Your task to perform on an android device: Do I have any events this weekend? Image 0: 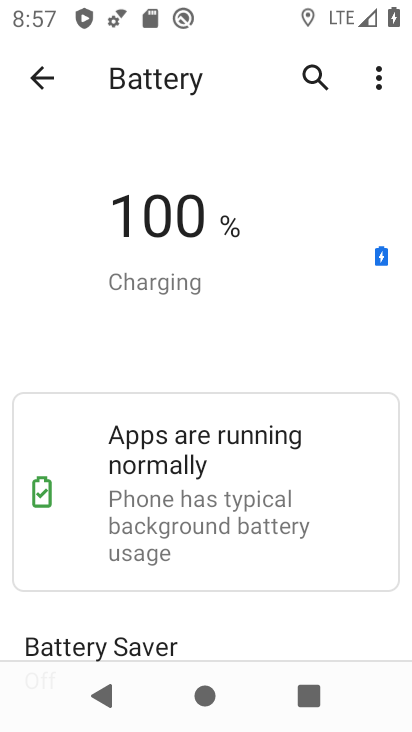
Step 0: press back button
Your task to perform on an android device: Do I have any events this weekend? Image 1: 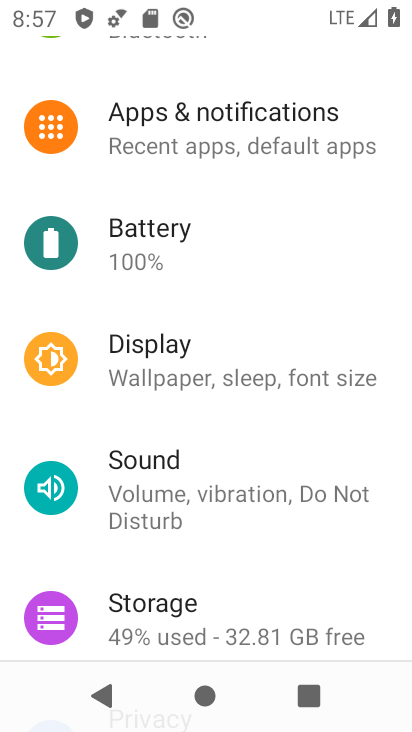
Step 1: press back button
Your task to perform on an android device: Do I have any events this weekend? Image 2: 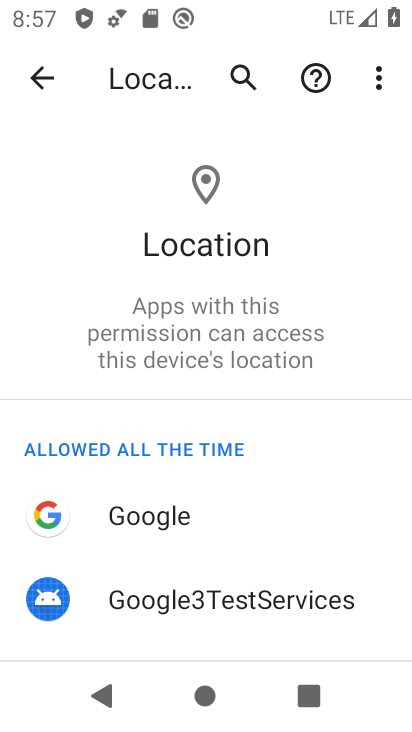
Step 2: press back button
Your task to perform on an android device: Do I have any events this weekend? Image 3: 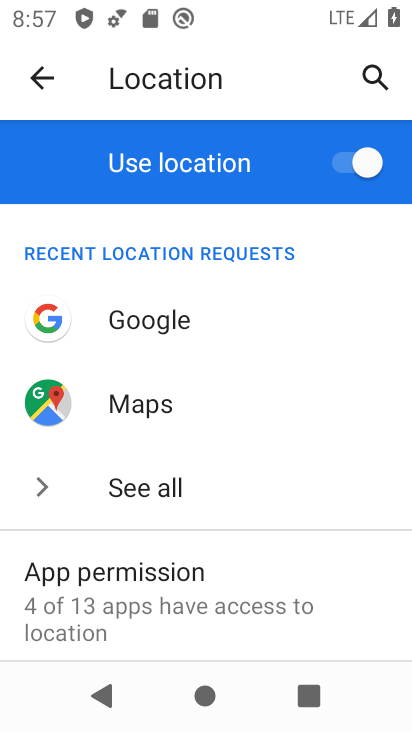
Step 3: press home button
Your task to perform on an android device: Do I have any events this weekend? Image 4: 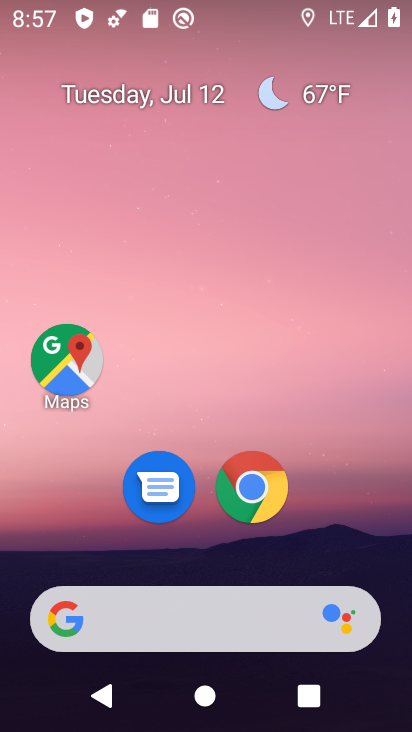
Step 4: drag from (169, 571) to (269, 0)
Your task to perform on an android device: Do I have any events this weekend? Image 5: 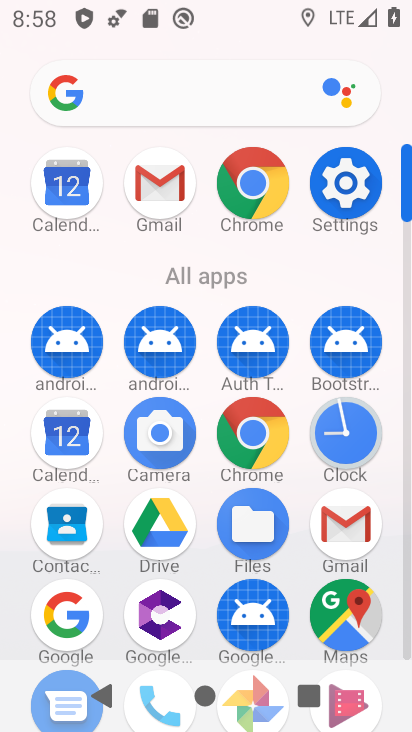
Step 5: click (46, 428)
Your task to perform on an android device: Do I have any events this weekend? Image 6: 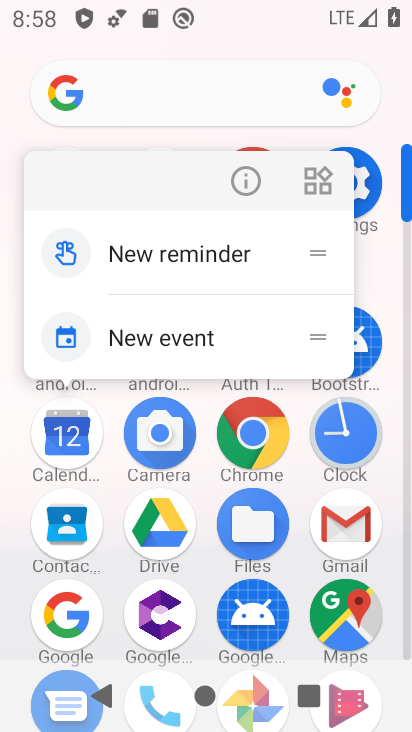
Step 6: click (64, 429)
Your task to perform on an android device: Do I have any events this weekend? Image 7: 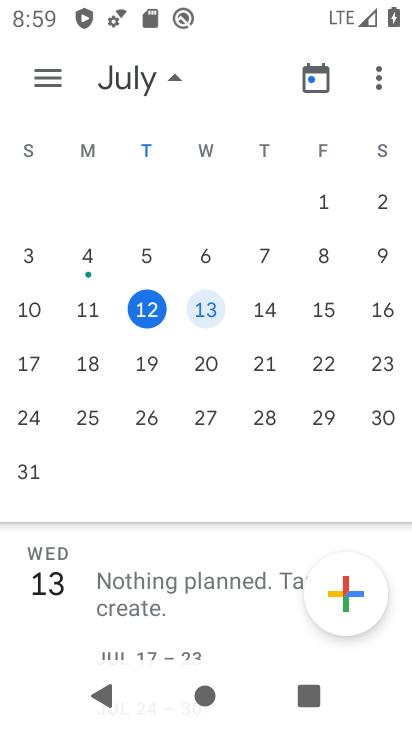
Step 7: task complete